Your task to perform on an android device: open app "Google Play Games" Image 0: 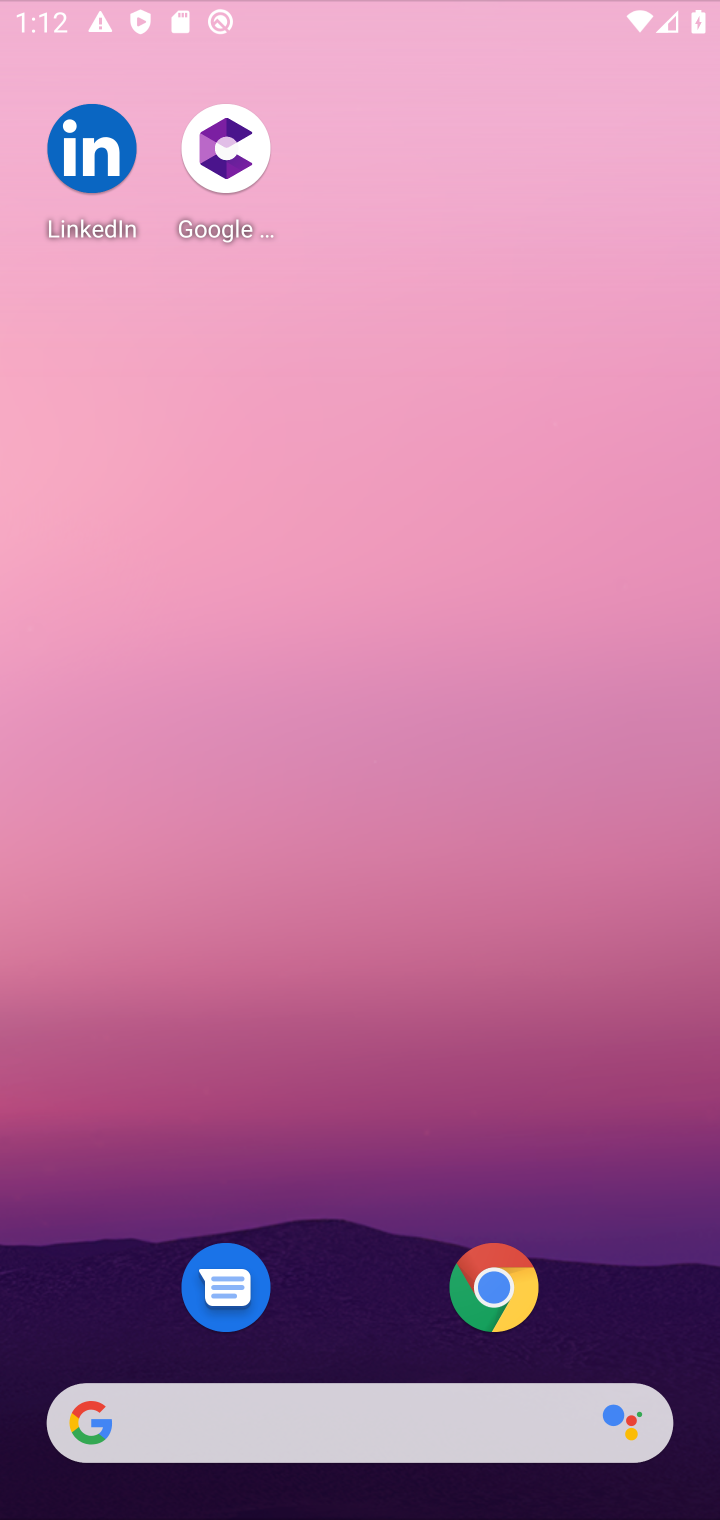
Step 0: press home button
Your task to perform on an android device: open app "Google Play Games" Image 1: 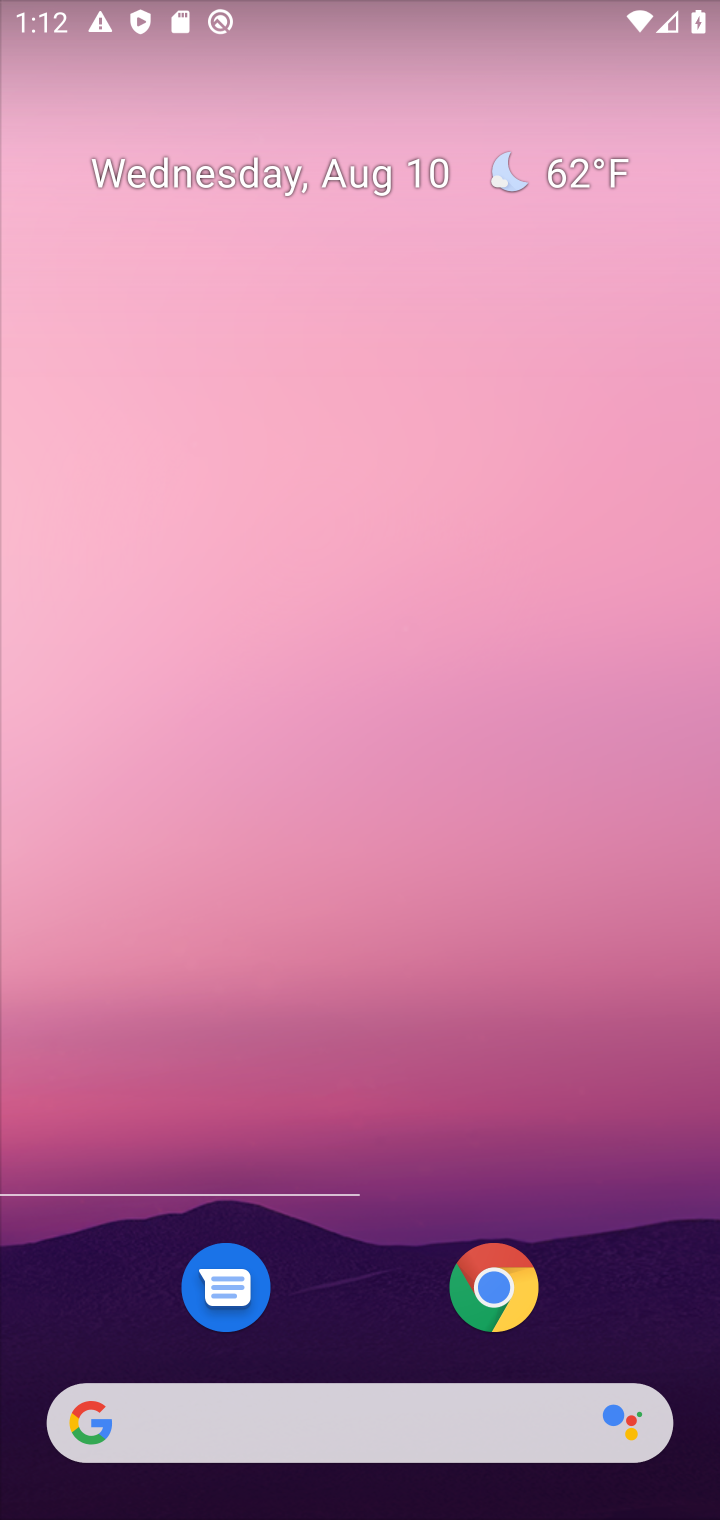
Step 1: drag from (334, 1150) to (394, 382)
Your task to perform on an android device: open app "Google Play Games" Image 2: 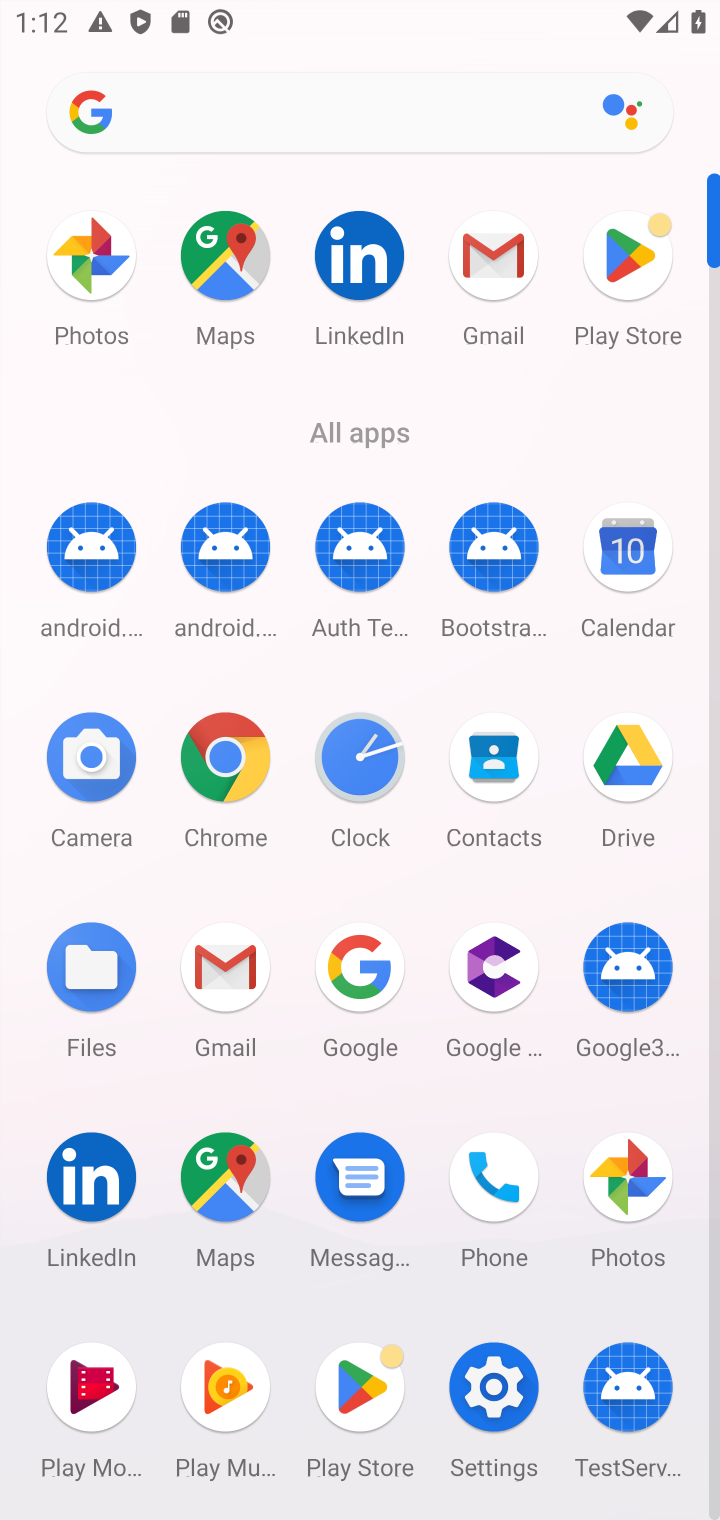
Step 2: click (352, 1380)
Your task to perform on an android device: open app "Google Play Games" Image 3: 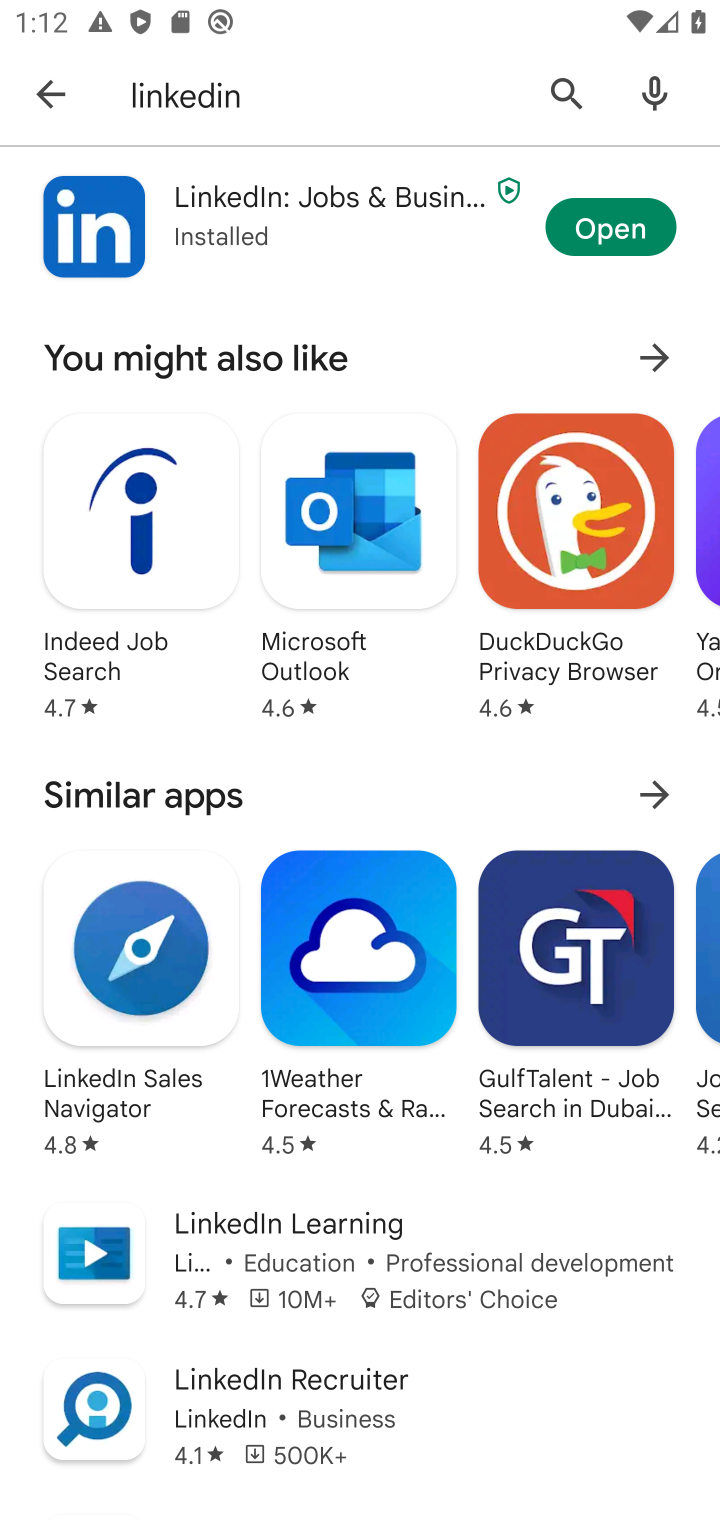
Step 3: click (318, 112)
Your task to perform on an android device: open app "Google Play Games" Image 4: 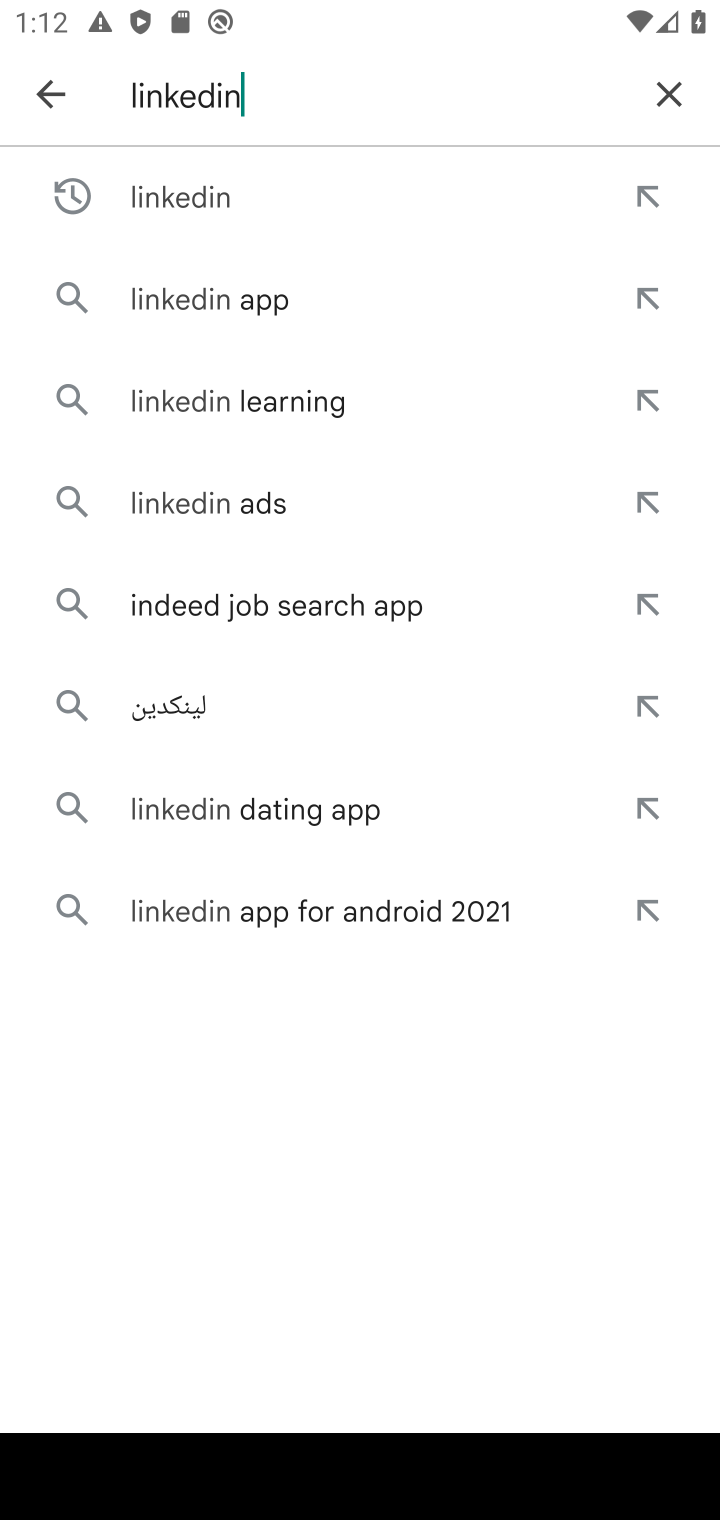
Step 4: click (673, 81)
Your task to perform on an android device: open app "Google Play Games" Image 5: 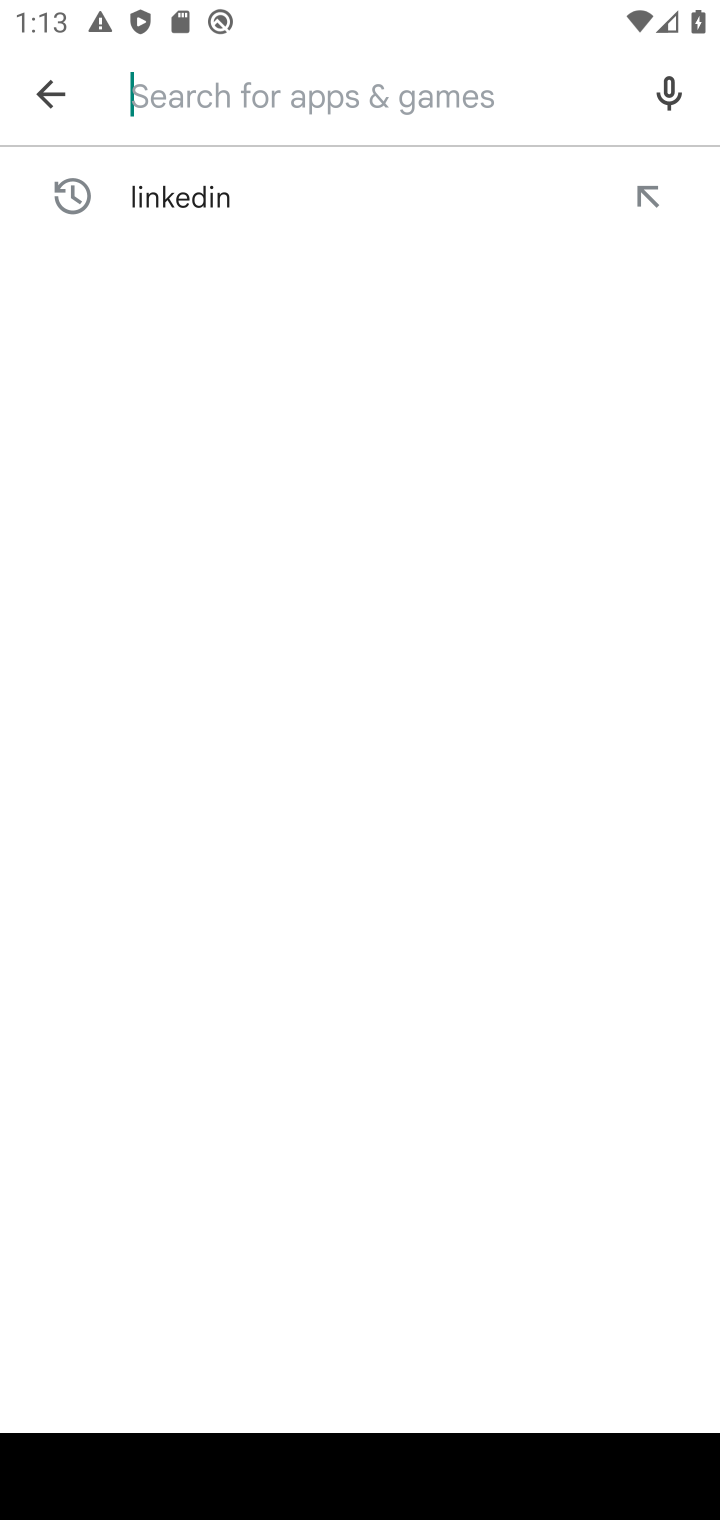
Step 5: type "google play games"
Your task to perform on an android device: open app "Google Play Games" Image 6: 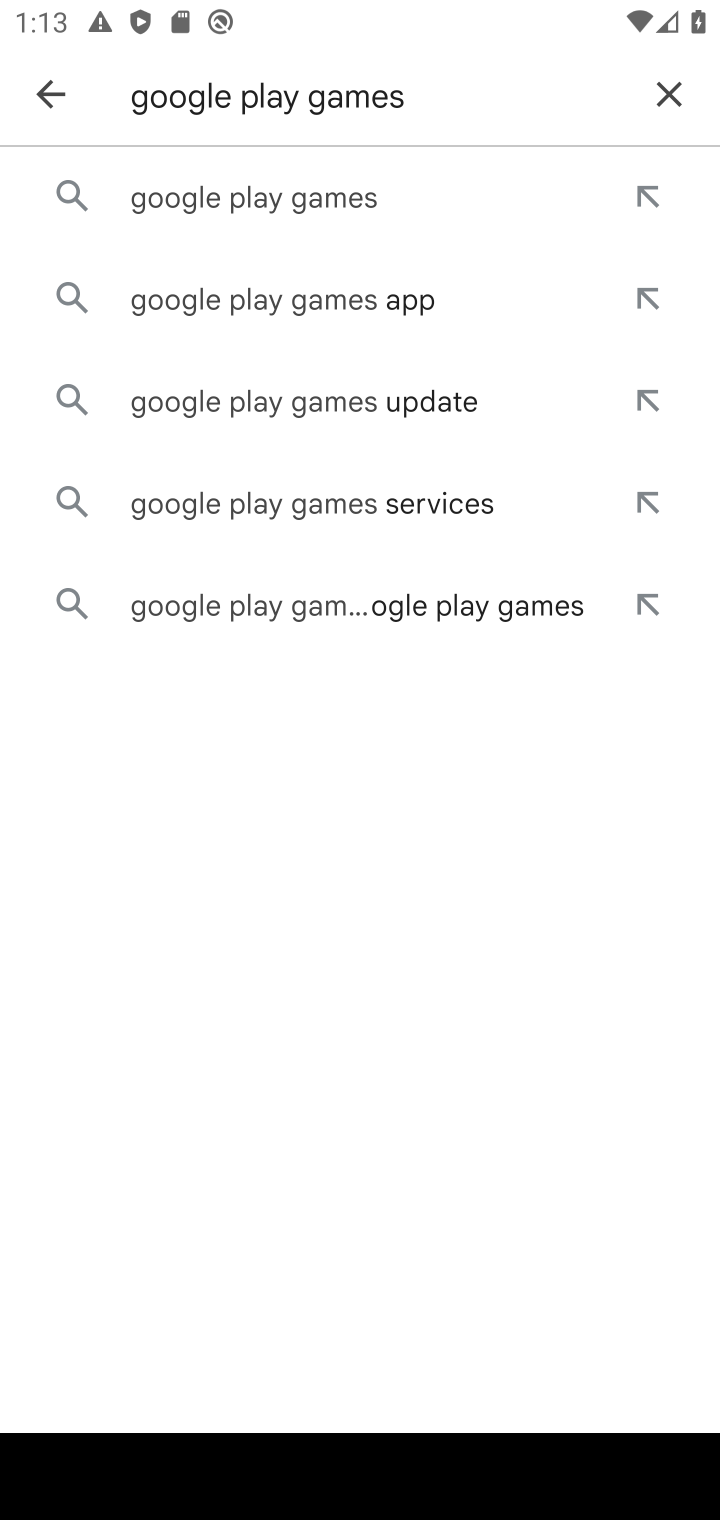
Step 6: click (310, 188)
Your task to perform on an android device: open app "Google Play Games" Image 7: 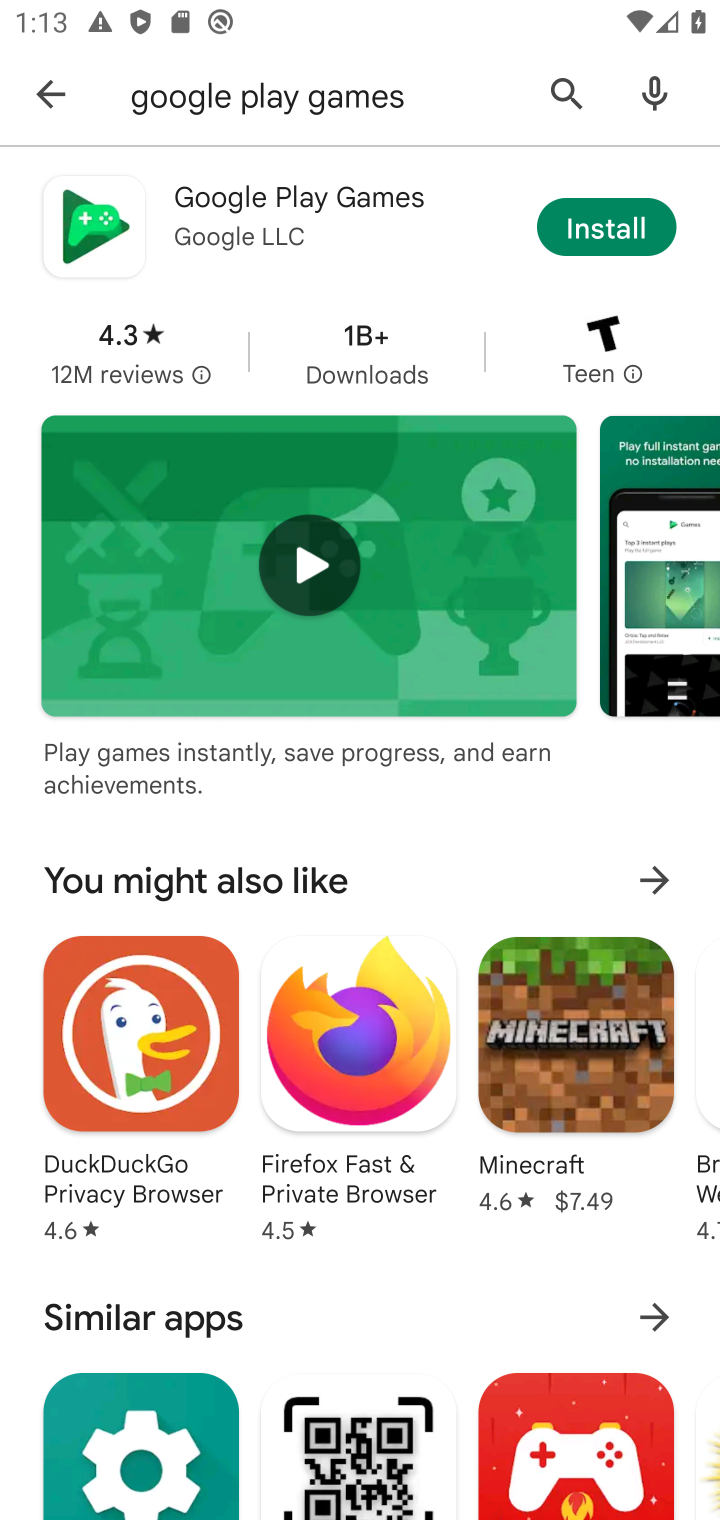
Step 7: task complete